Your task to perform on an android device: Open the calendar app, open the side menu, and click the "Day" option Image 0: 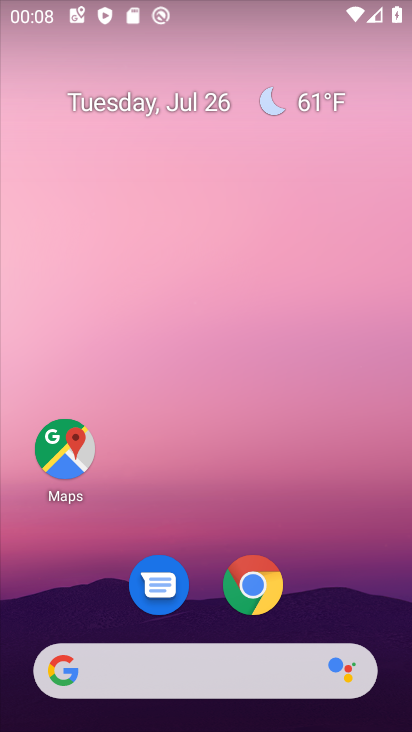
Step 0: drag from (290, 492) to (343, 19)
Your task to perform on an android device: Open the calendar app, open the side menu, and click the "Day" option Image 1: 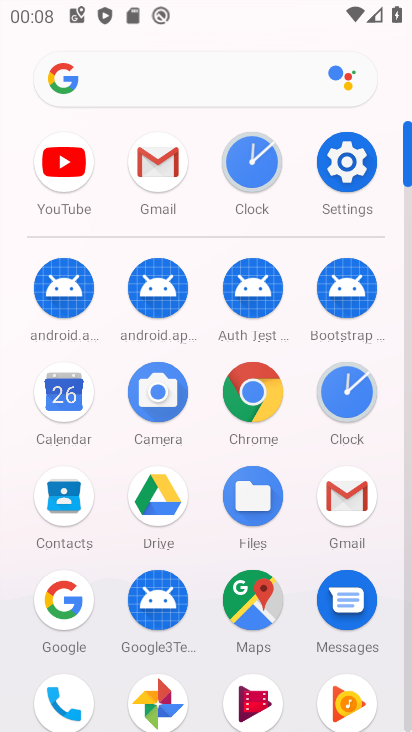
Step 1: click (67, 505)
Your task to perform on an android device: Open the calendar app, open the side menu, and click the "Day" option Image 2: 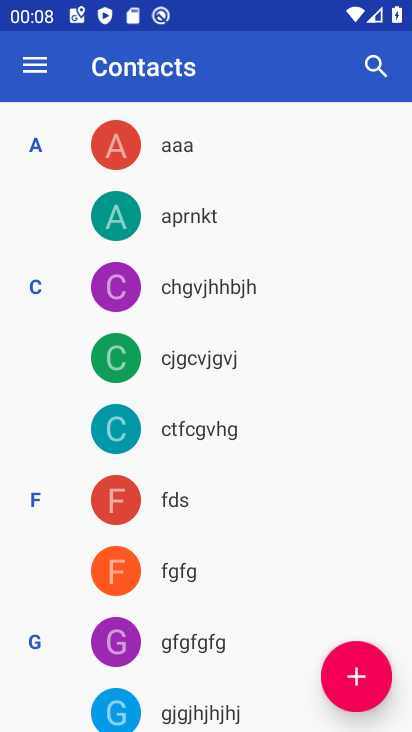
Step 2: press home button
Your task to perform on an android device: Open the calendar app, open the side menu, and click the "Day" option Image 3: 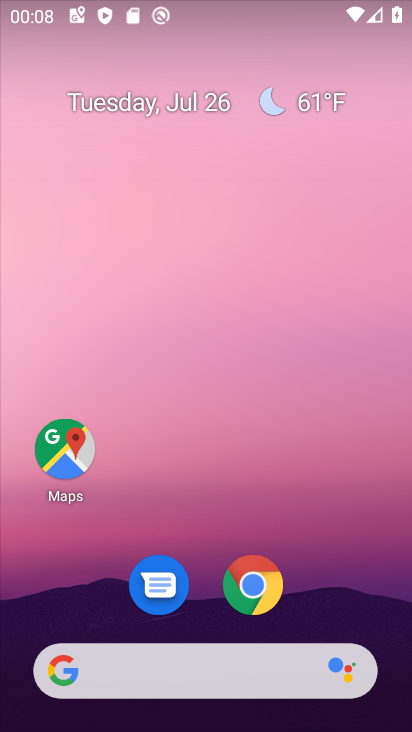
Step 3: drag from (327, 576) to (302, 57)
Your task to perform on an android device: Open the calendar app, open the side menu, and click the "Day" option Image 4: 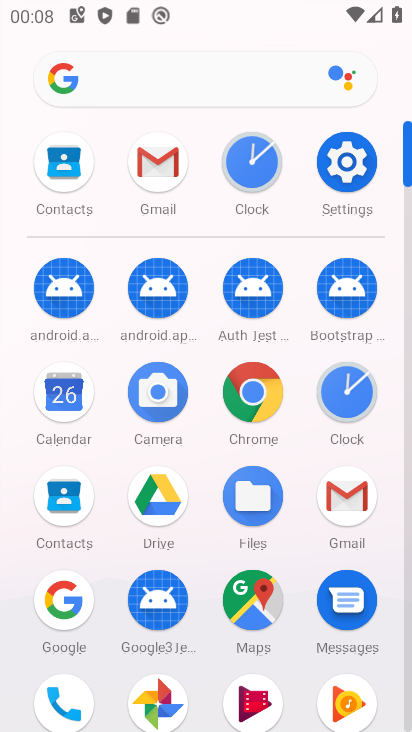
Step 4: click (66, 403)
Your task to perform on an android device: Open the calendar app, open the side menu, and click the "Day" option Image 5: 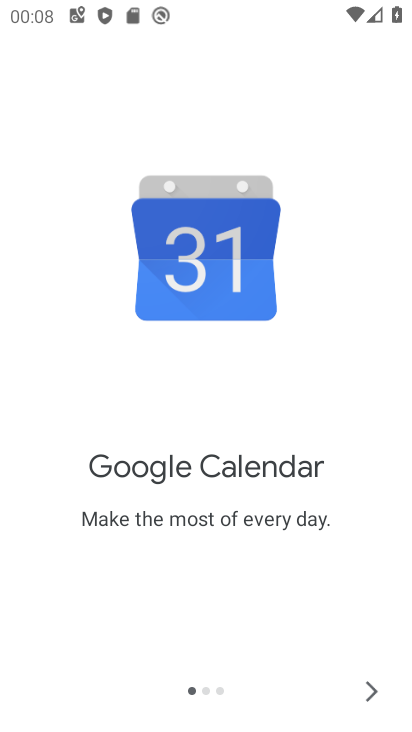
Step 5: click (371, 690)
Your task to perform on an android device: Open the calendar app, open the side menu, and click the "Day" option Image 6: 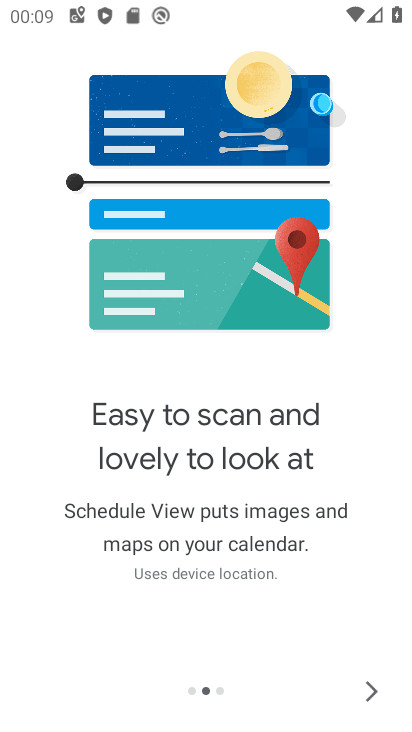
Step 6: click (371, 691)
Your task to perform on an android device: Open the calendar app, open the side menu, and click the "Day" option Image 7: 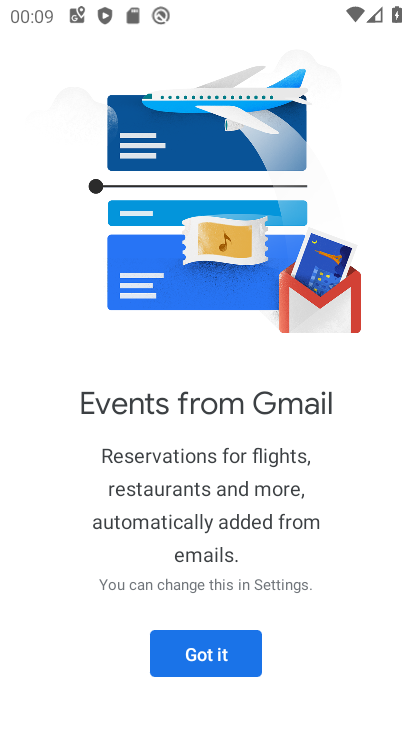
Step 7: click (249, 657)
Your task to perform on an android device: Open the calendar app, open the side menu, and click the "Day" option Image 8: 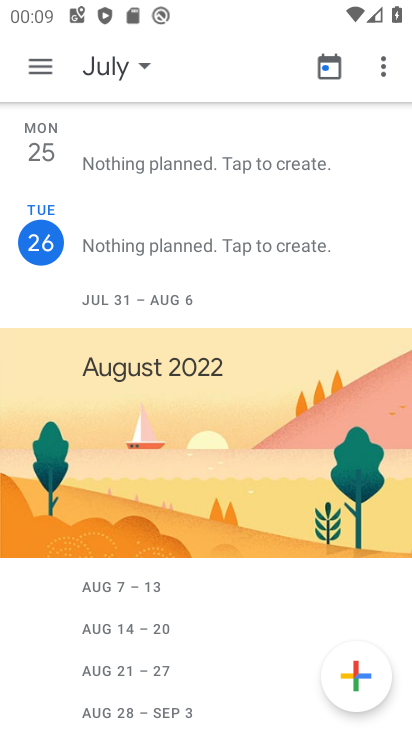
Step 8: click (34, 71)
Your task to perform on an android device: Open the calendar app, open the side menu, and click the "Day" option Image 9: 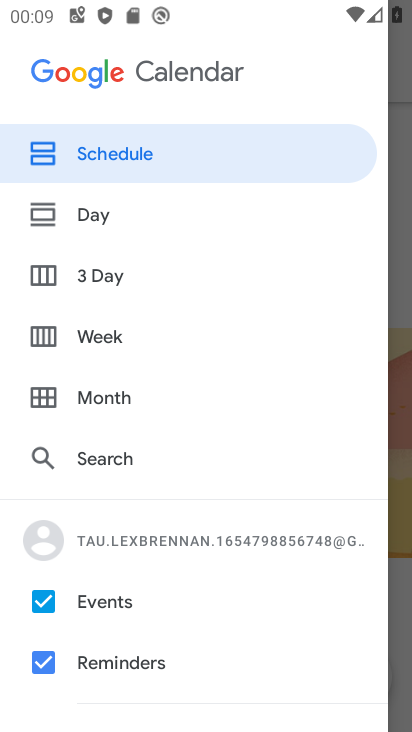
Step 9: click (50, 213)
Your task to perform on an android device: Open the calendar app, open the side menu, and click the "Day" option Image 10: 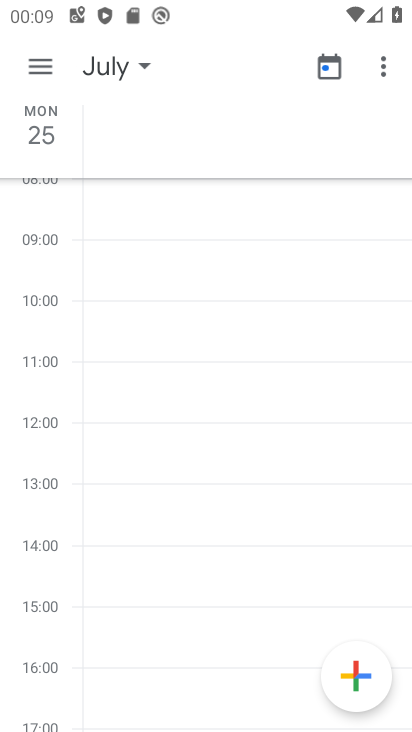
Step 10: task complete